Your task to perform on an android device: turn off notifications settings in the gmail app Image 0: 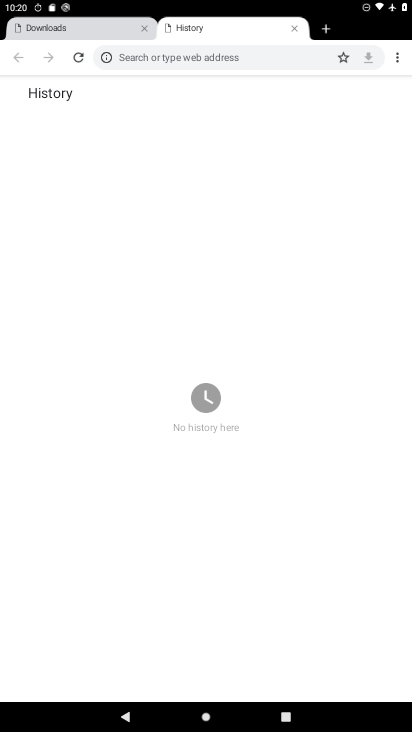
Step 0: press home button
Your task to perform on an android device: turn off notifications settings in the gmail app Image 1: 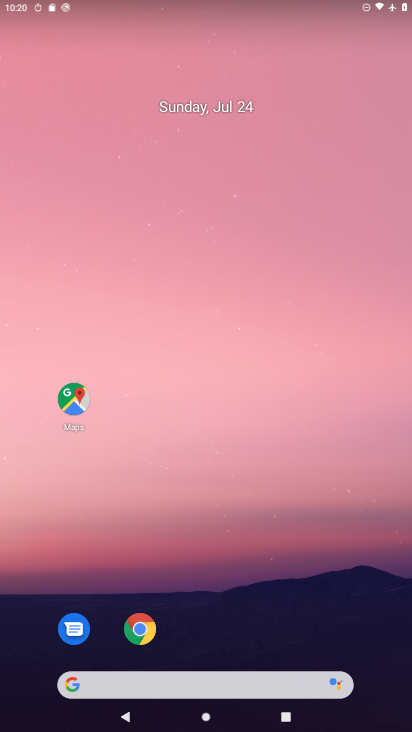
Step 1: drag from (159, 604) to (195, 79)
Your task to perform on an android device: turn off notifications settings in the gmail app Image 2: 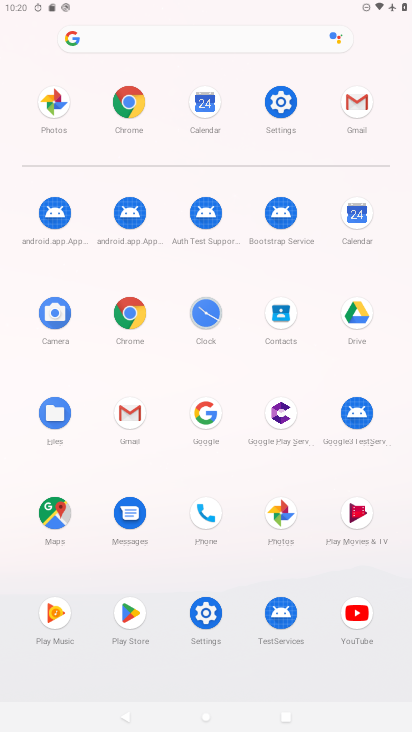
Step 2: click (130, 428)
Your task to perform on an android device: turn off notifications settings in the gmail app Image 3: 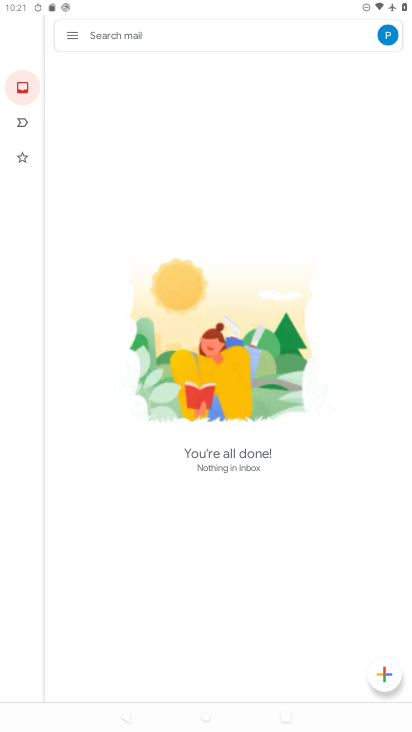
Step 3: click (69, 42)
Your task to perform on an android device: turn off notifications settings in the gmail app Image 4: 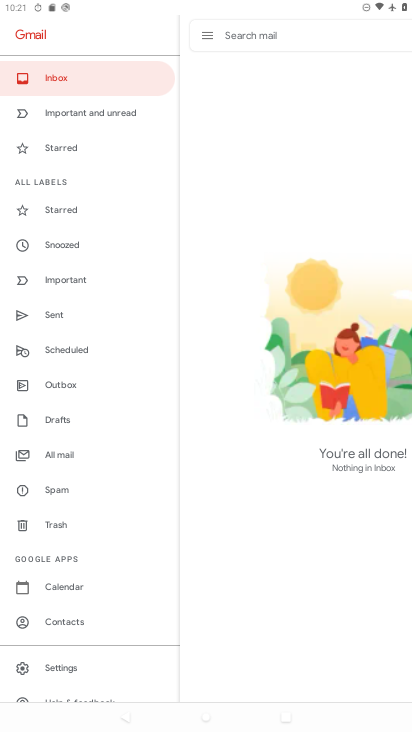
Step 4: click (63, 673)
Your task to perform on an android device: turn off notifications settings in the gmail app Image 5: 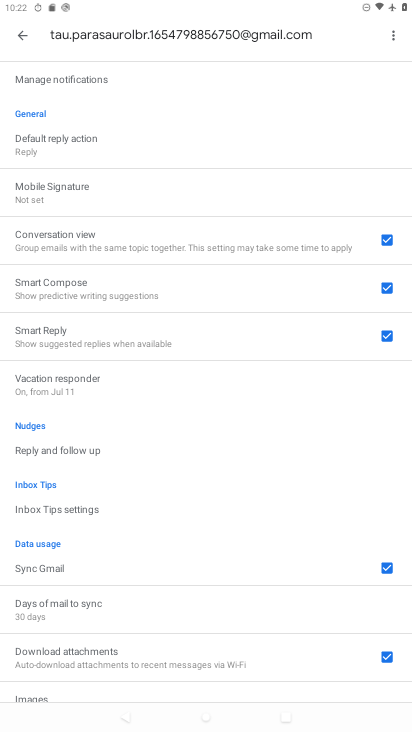
Step 5: click (19, 41)
Your task to perform on an android device: turn off notifications settings in the gmail app Image 6: 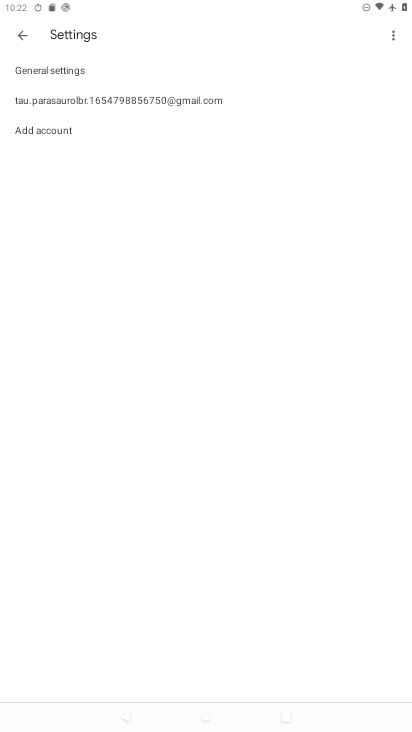
Step 6: click (52, 70)
Your task to perform on an android device: turn off notifications settings in the gmail app Image 7: 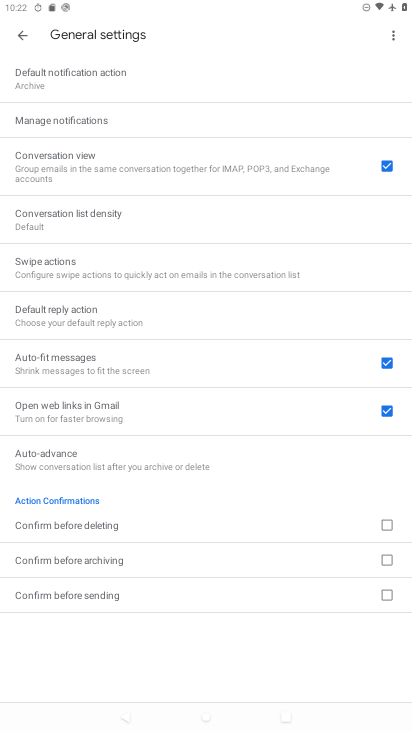
Step 7: click (112, 128)
Your task to perform on an android device: turn off notifications settings in the gmail app Image 8: 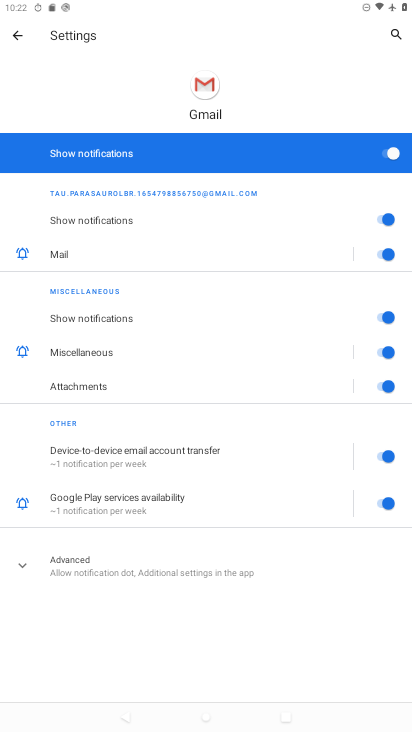
Step 8: click (383, 158)
Your task to perform on an android device: turn off notifications settings in the gmail app Image 9: 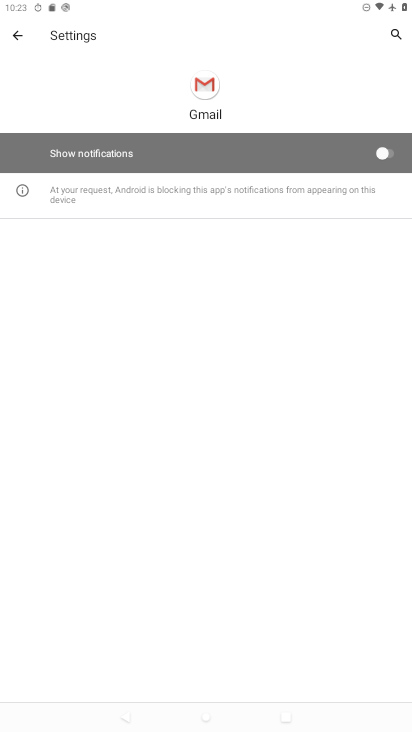
Step 9: task complete